Your task to perform on an android device: Open Chrome and go to settings Image 0: 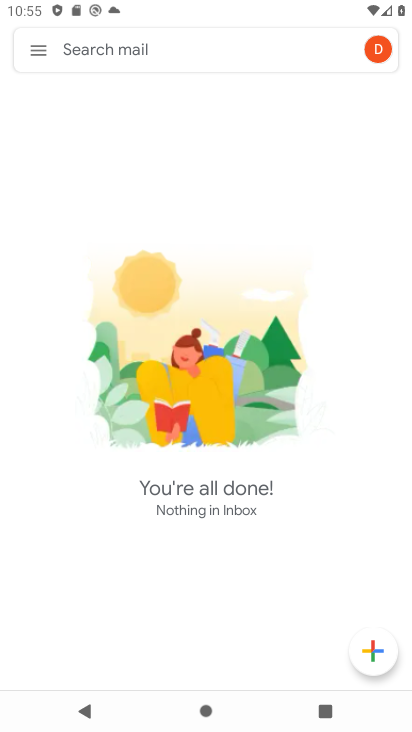
Step 0: press home button
Your task to perform on an android device: Open Chrome and go to settings Image 1: 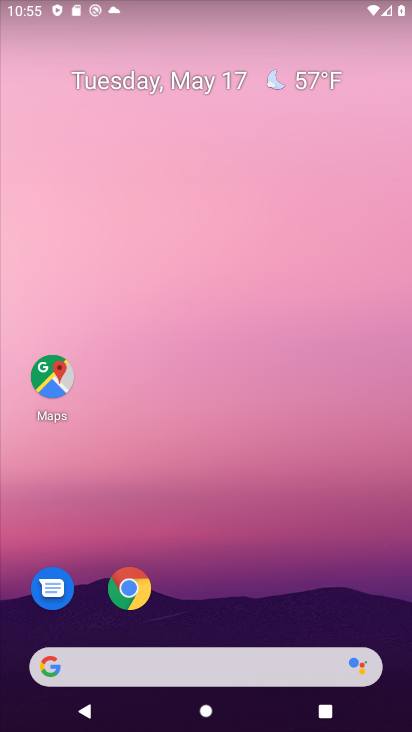
Step 1: click (138, 595)
Your task to perform on an android device: Open Chrome and go to settings Image 2: 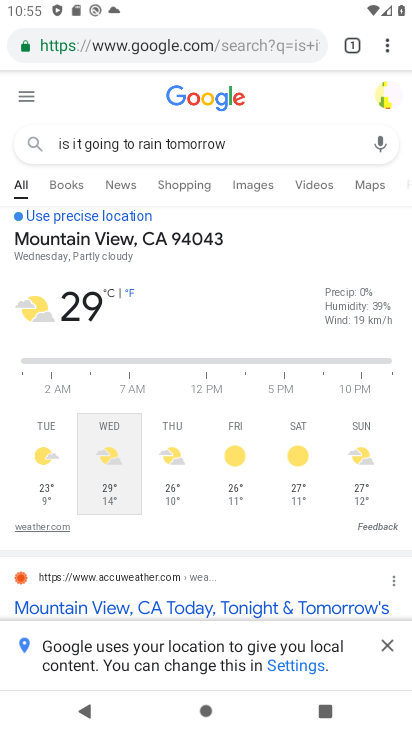
Step 2: task complete